Your task to perform on an android device: turn off notifications settings in the gmail app Image 0: 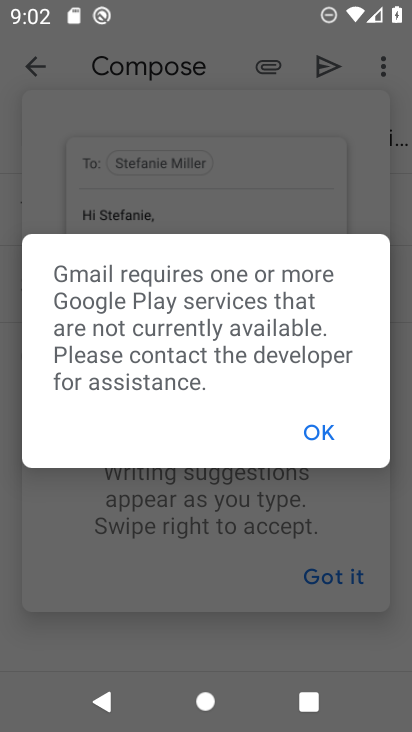
Step 0: press home button
Your task to perform on an android device: turn off notifications settings in the gmail app Image 1: 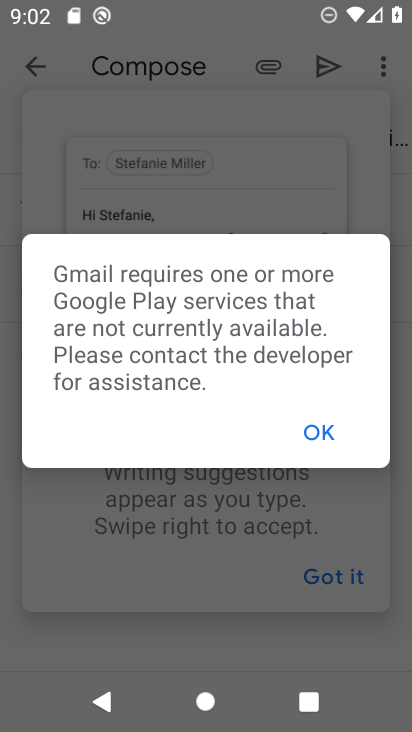
Step 1: press home button
Your task to perform on an android device: turn off notifications settings in the gmail app Image 2: 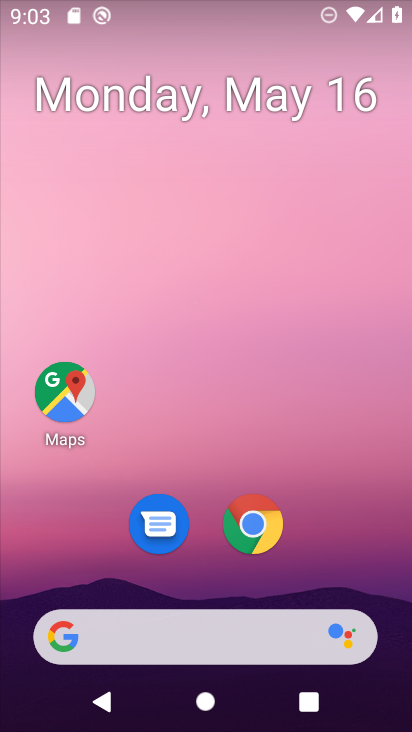
Step 2: drag from (290, 532) to (316, 86)
Your task to perform on an android device: turn off notifications settings in the gmail app Image 3: 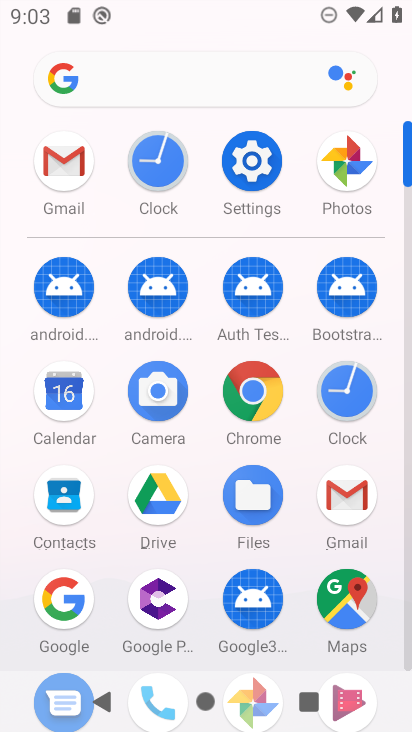
Step 3: click (77, 166)
Your task to perform on an android device: turn off notifications settings in the gmail app Image 4: 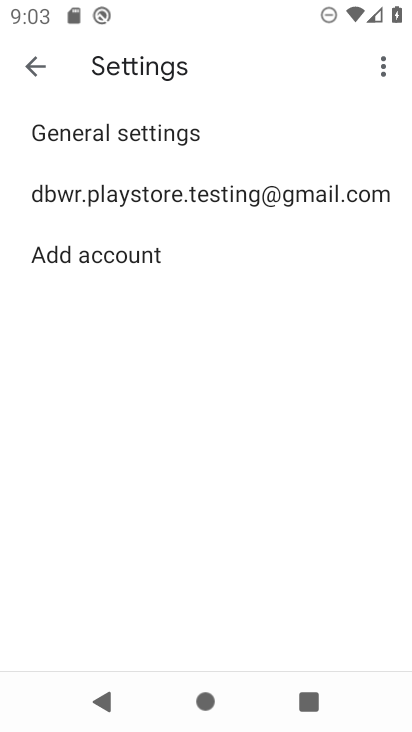
Step 4: click (123, 188)
Your task to perform on an android device: turn off notifications settings in the gmail app Image 5: 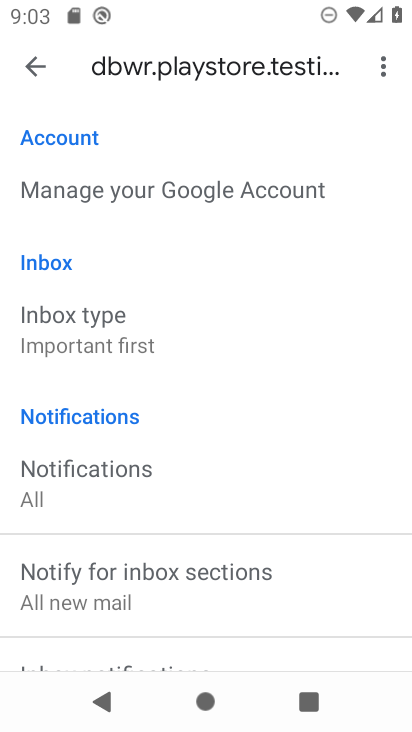
Step 5: drag from (177, 473) to (236, 141)
Your task to perform on an android device: turn off notifications settings in the gmail app Image 6: 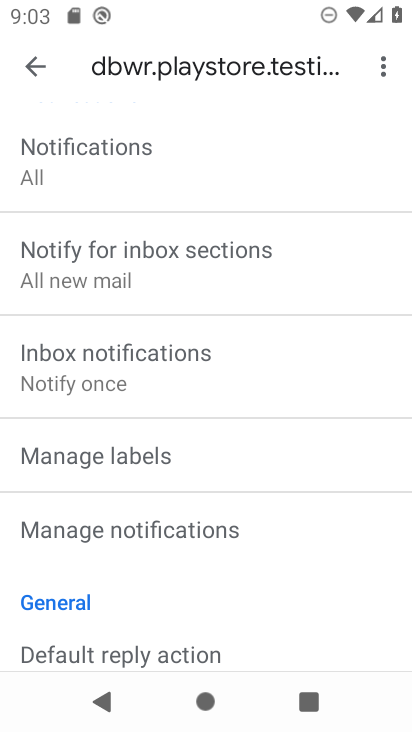
Step 6: click (235, 524)
Your task to perform on an android device: turn off notifications settings in the gmail app Image 7: 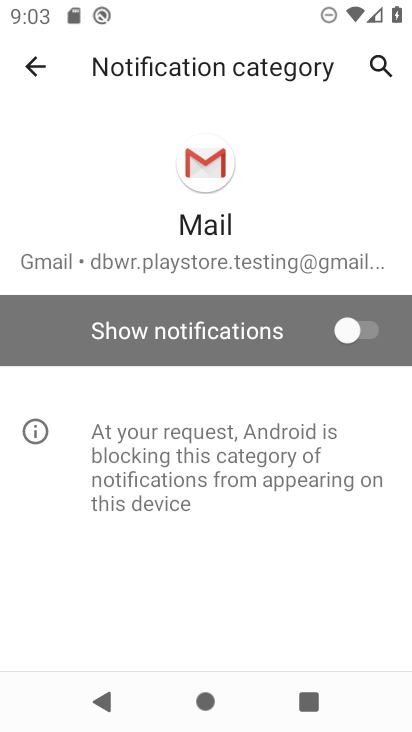
Step 7: task complete